Your task to perform on an android device: Go to Yahoo.com Image 0: 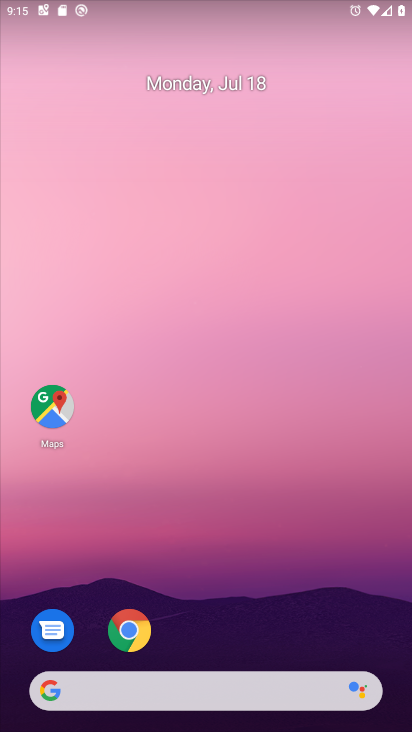
Step 0: click (128, 625)
Your task to perform on an android device: Go to Yahoo.com Image 1: 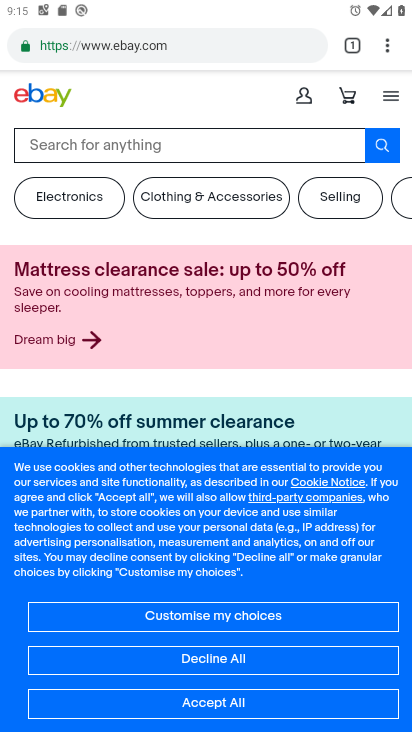
Step 1: click (353, 43)
Your task to perform on an android device: Go to Yahoo.com Image 2: 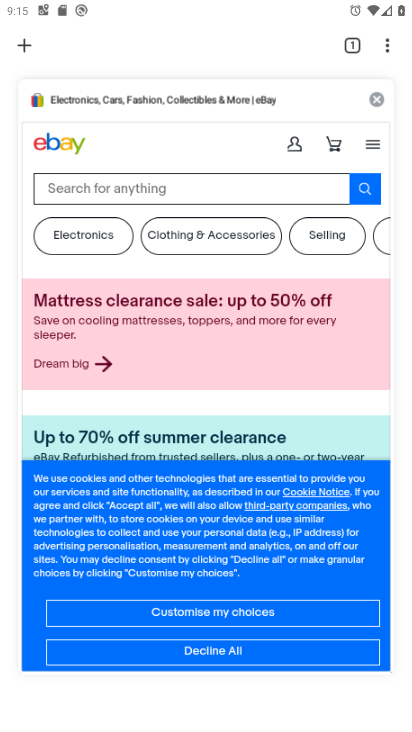
Step 2: click (27, 40)
Your task to perform on an android device: Go to Yahoo.com Image 3: 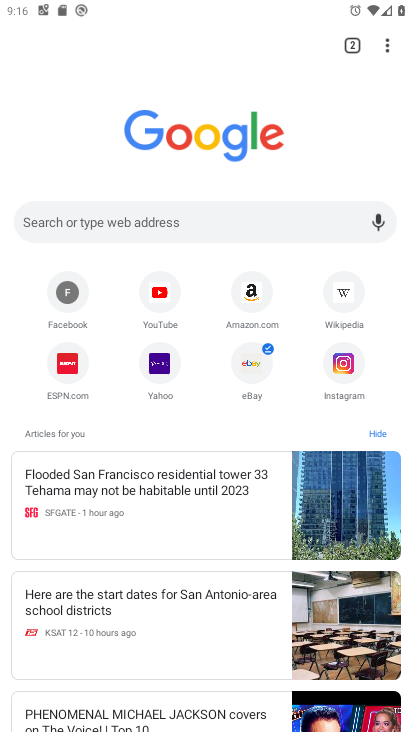
Step 3: click (162, 374)
Your task to perform on an android device: Go to Yahoo.com Image 4: 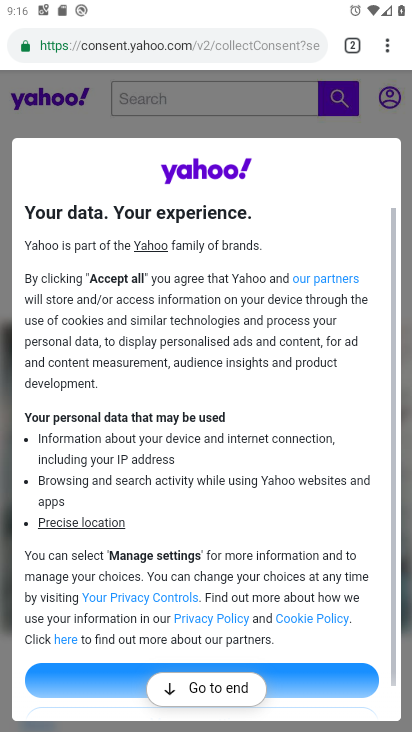
Step 4: task complete